Your task to perform on an android device: read, delete, or share a saved page in the chrome app Image 0: 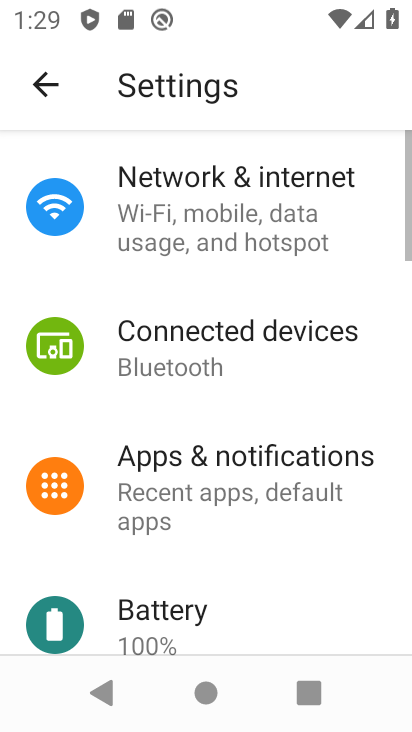
Step 0: press home button
Your task to perform on an android device: read, delete, or share a saved page in the chrome app Image 1: 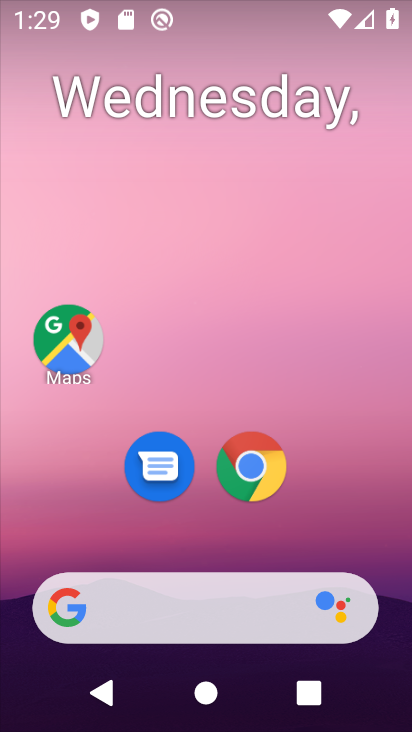
Step 1: click (243, 466)
Your task to perform on an android device: read, delete, or share a saved page in the chrome app Image 2: 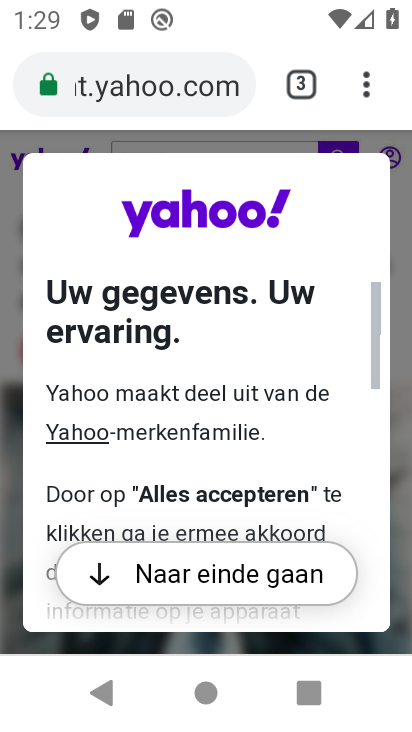
Step 2: click (375, 85)
Your task to perform on an android device: read, delete, or share a saved page in the chrome app Image 3: 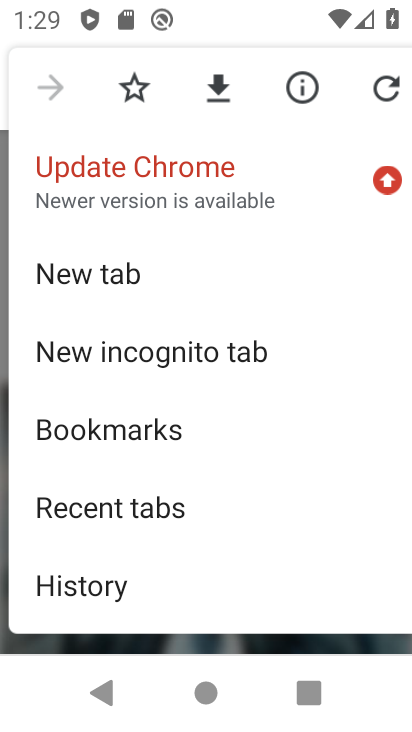
Step 3: drag from (128, 520) to (140, 92)
Your task to perform on an android device: read, delete, or share a saved page in the chrome app Image 4: 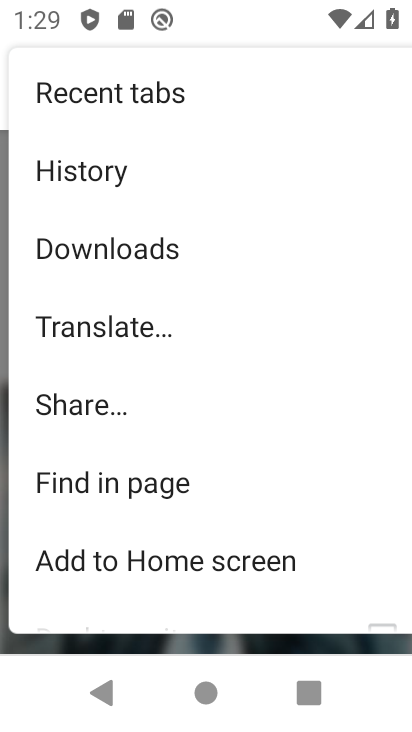
Step 4: click (84, 271)
Your task to perform on an android device: read, delete, or share a saved page in the chrome app Image 5: 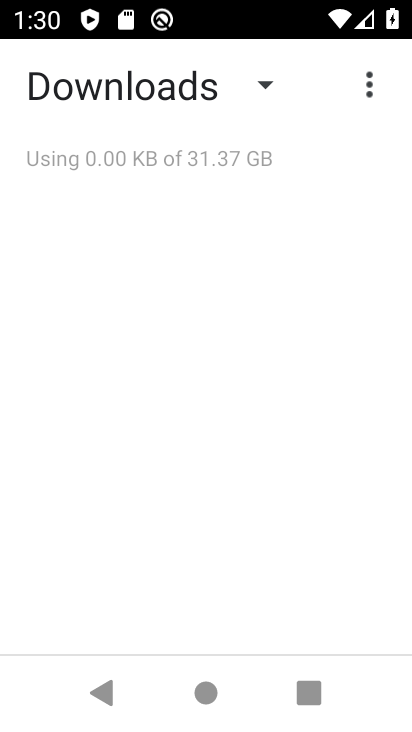
Step 5: task complete